Your task to perform on an android device: Go to Google maps Image 0: 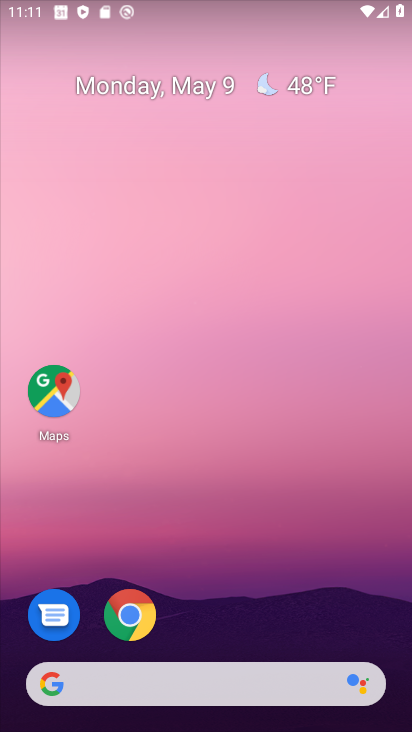
Step 0: click (56, 385)
Your task to perform on an android device: Go to Google maps Image 1: 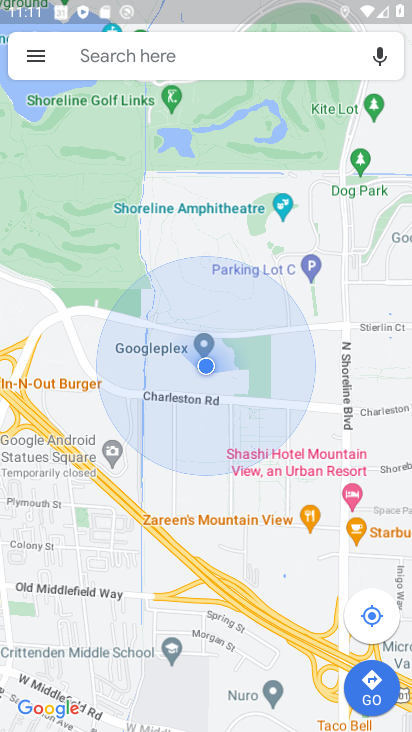
Step 1: task complete